Your task to perform on an android device: Open Wikipedia Image 0: 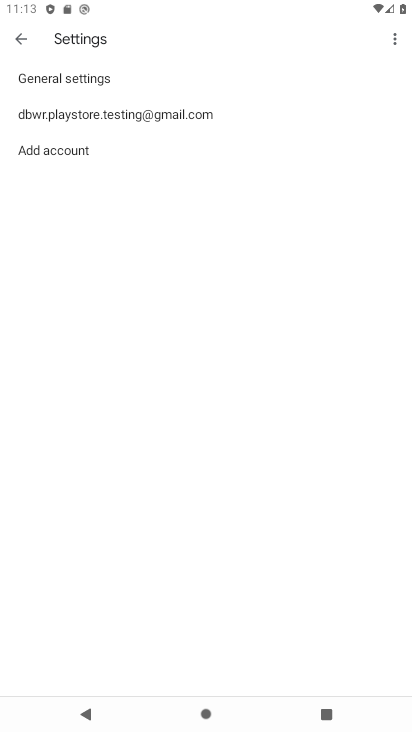
Step 0: press home button
Your task to perform on an android device: Open Wikipedia Image 1: 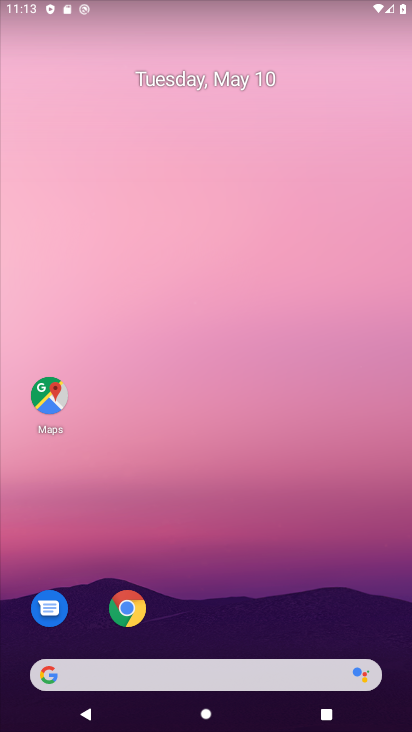
Step 1: drag from (204, 578) to (227, 139)
Your task to perform on an android device: Open Wikipedia Image 2: 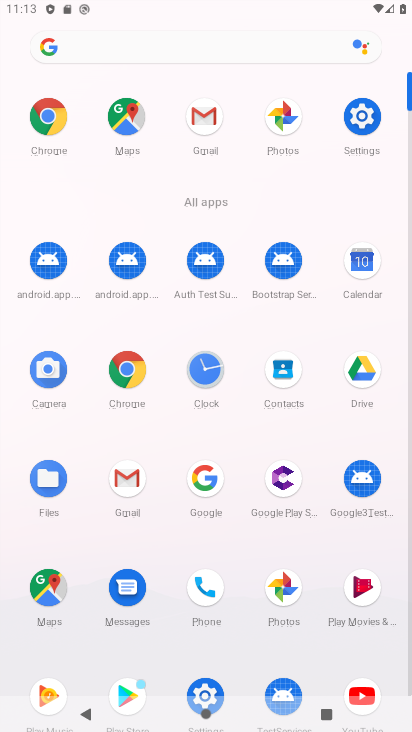
Step 2: click (130, 362)
Your task to perform on an android device: Open Wikipedia Image 3: 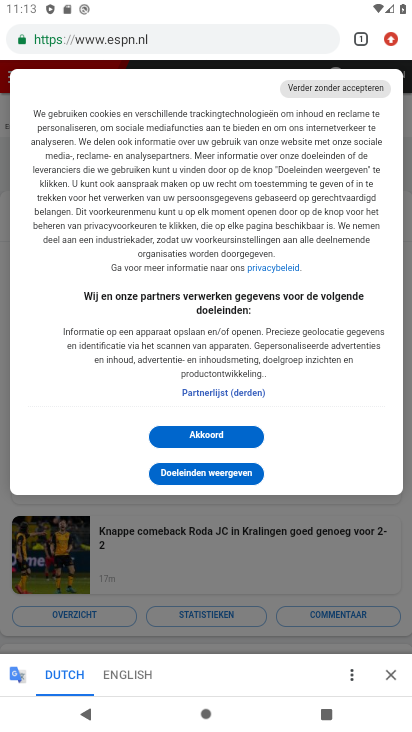
Step 3: drag from (385, 39) to (306, 131)
Your task to perform on an android device: Open Wikipedia Image 4: 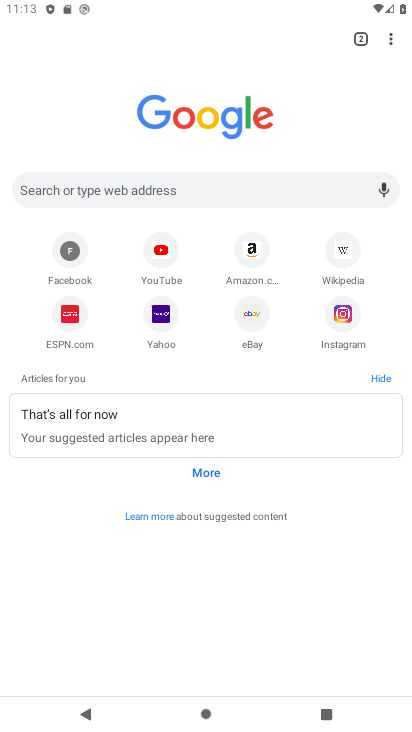
Step 4: click (343, 243)
Your task to perform on an android device: Open Wikipedia Image 5: 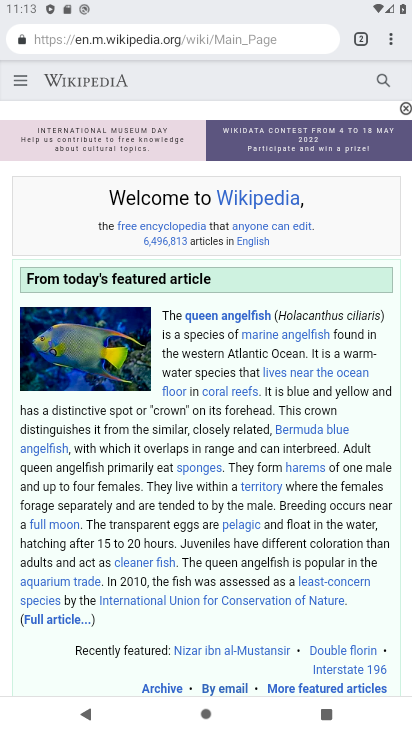
Step 5: task complete